Your task to perform on an android device: turn on improve location accuracy Image 0: 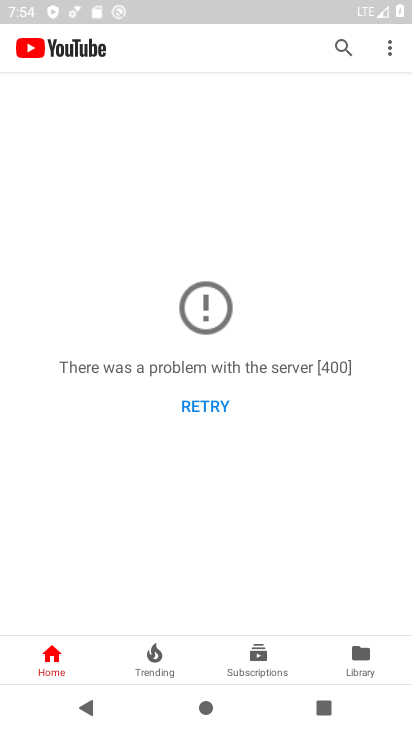
Step 0: press back button
Your task to perform on an android device: turn on improve location accuracy Image 1: 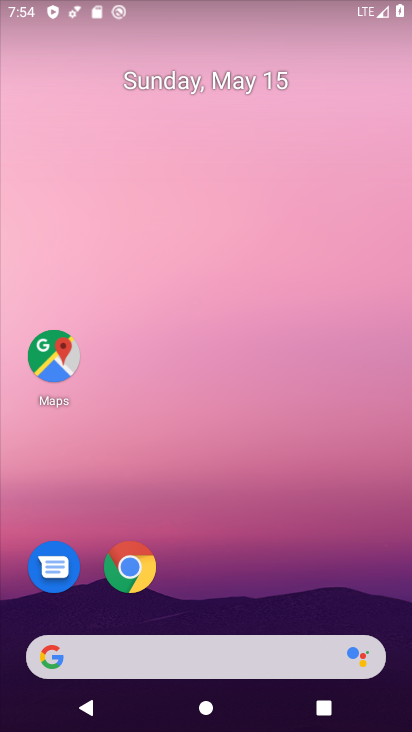
Step 1: drag from (220, 647) to (298, 135)
Your task to perform on an android device: turn on improve location accuracy Image 2: 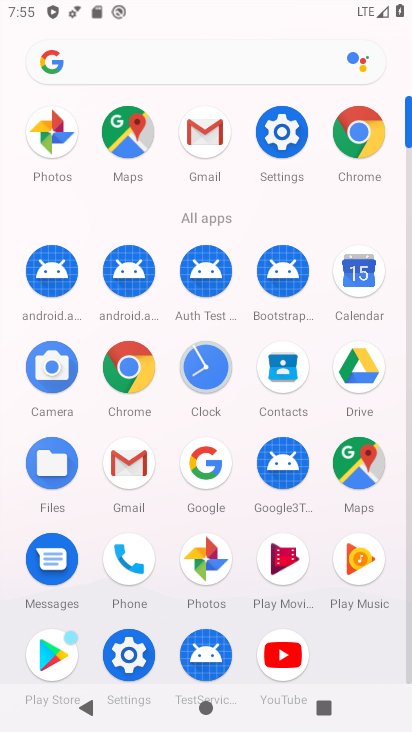
Step 2: click (124, 654)
Your task to perform on an android device: turn on improve location accuracy Image 3: 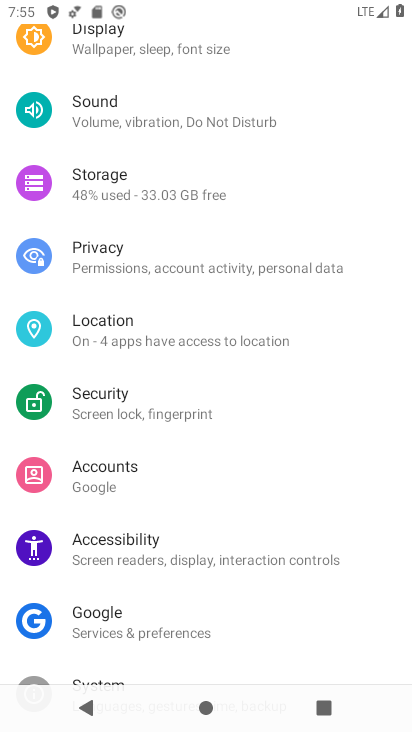
Step 3: click (258, 323)
Your task to perform on an android device: turn on improve location accuracy Image 4: 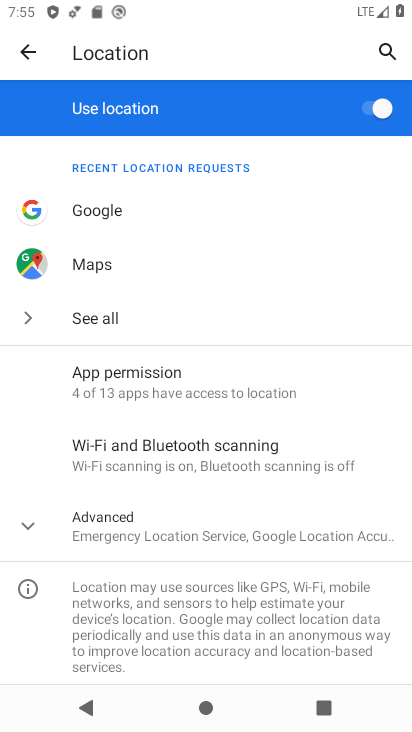
Step 4: click (186, 520)
Your task to perform on an android device: turn on improve location accuracy Image 5: 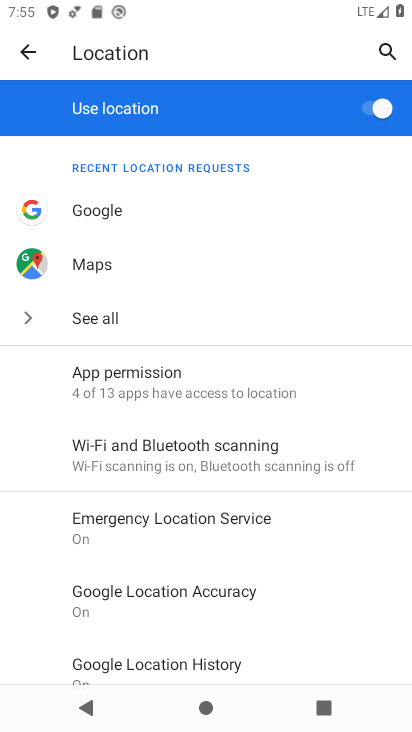
Step 5: click (164, 598)
Your task to perform on an android device: turn on improve location accuracy Image 6: 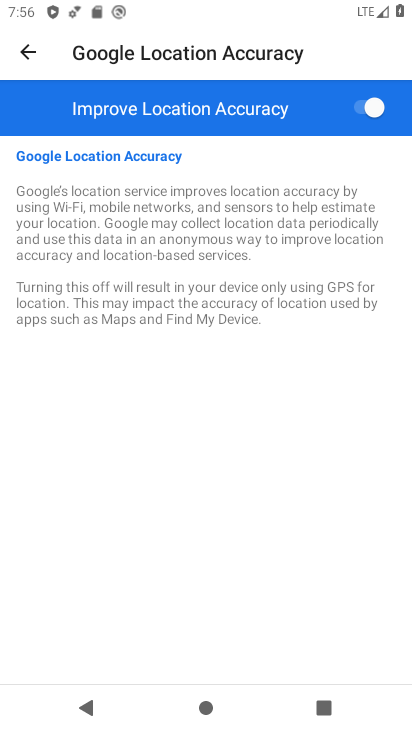
Step 6: task complete